Your task to perform on an android device: Open the Play Movies app and select the watchlist tab. Image 0: 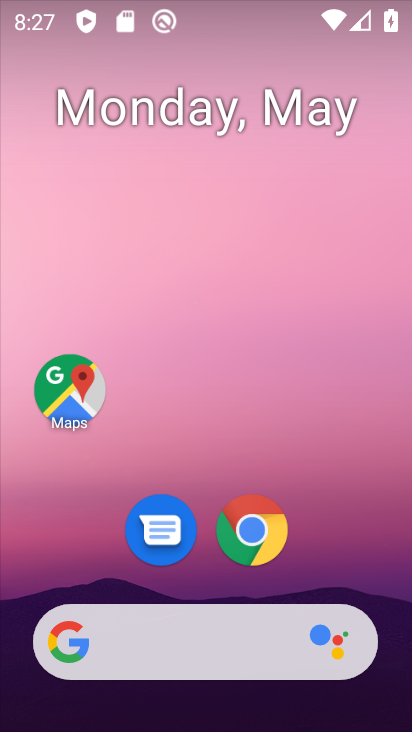
Step 0: drag from (384, 600) to (282, 102)
Your task to perform on an android device: Open the Play Movies app and select the watchlist tab. Image 1: 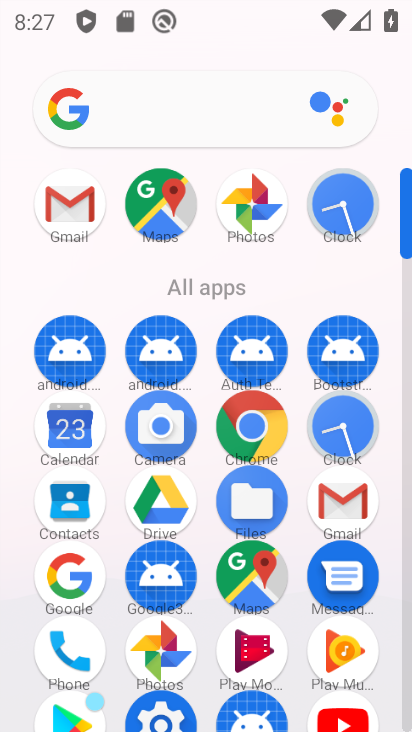
Step 1: click (238, 656)
Your task to perform on an android device: Open the Play Movies app and select the watchlist tab. Image 2: 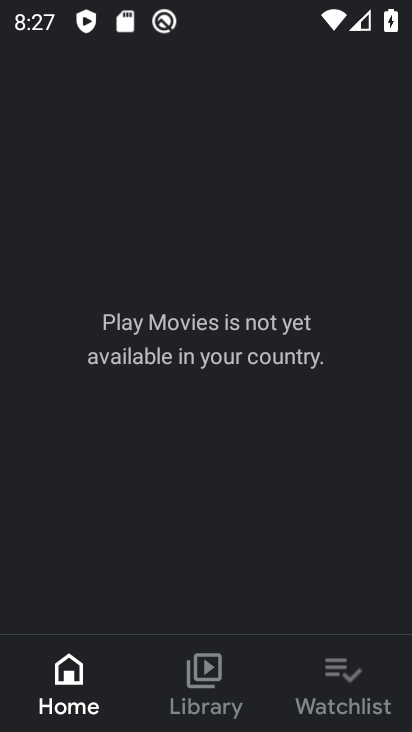
Step 2: click (330, 673)
Your task to perform on an android device: Open the Play Movies app and select the watchlist tab. Image 3: 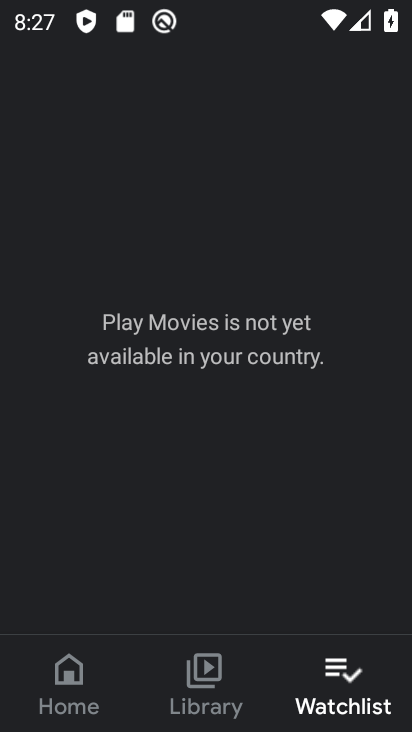
Step 3: task complete